Your task to perform on an android device: Open the phone app and click the voicemail tab. Image 0: 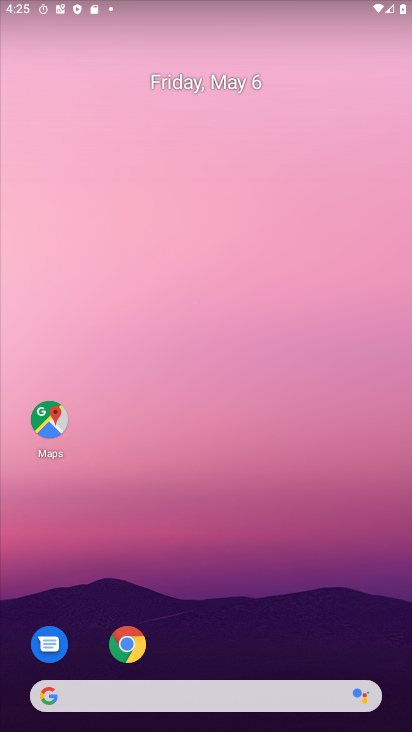
Step 0: drag from (348, 645) to (167, 106)
Your task to perform on an android device: Open the phone app and click the voicemail tab. Image 1: 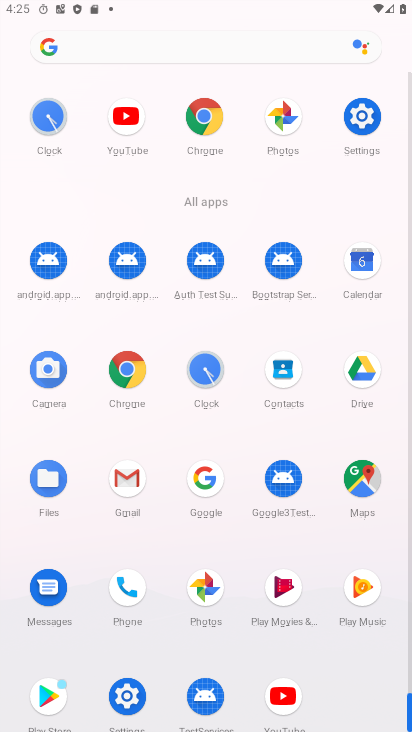
Step 1: click (122, 591)
Your task to perform on an android device: Open the phone app and click the voicemail tab. Image 2: 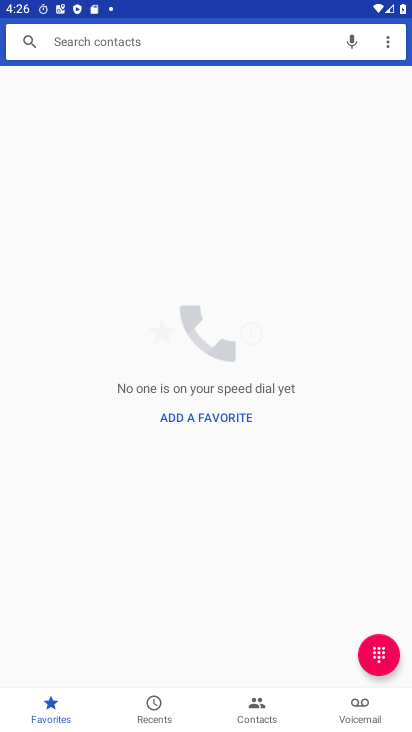
Step 2: click (360, 705)
Your task to perform on an android device: Open the phone app and click the voicemail tab. Image 3: 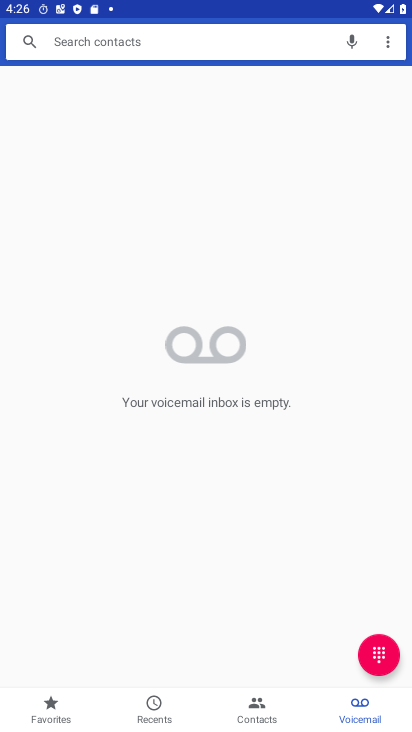
Step 3: task complete